Your task to perform on an android device: delete browsing data in the chrome app Image 0: 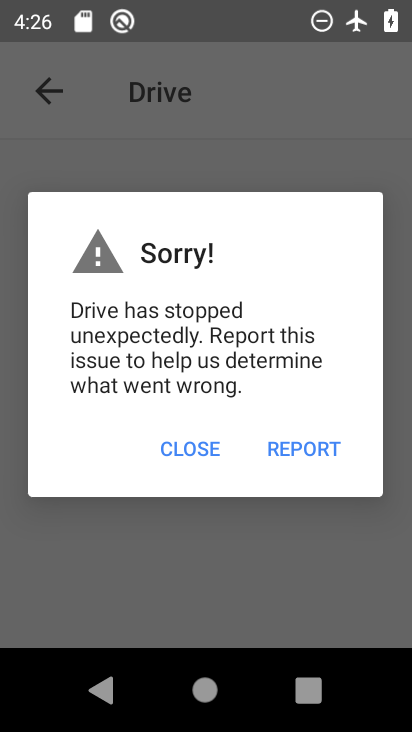
Step 0: press home button
Your task to perform on an android device: delete browsing data in the chrome app Image 1: 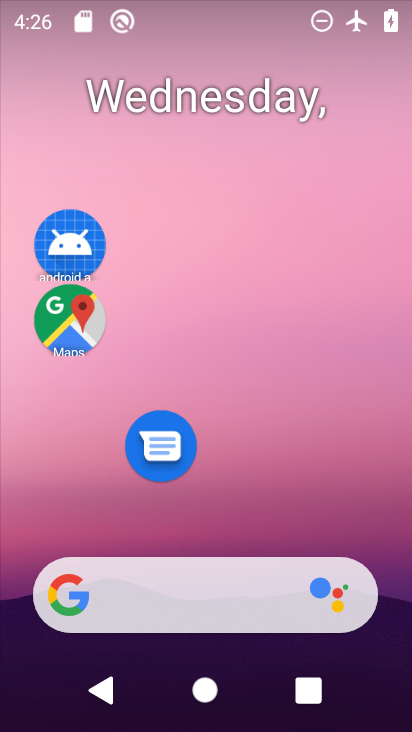
Step 1: drag from (358, 465) to (331, 155)
Your task to perform on an android device: delete browsing data in the chrome app Image 2: 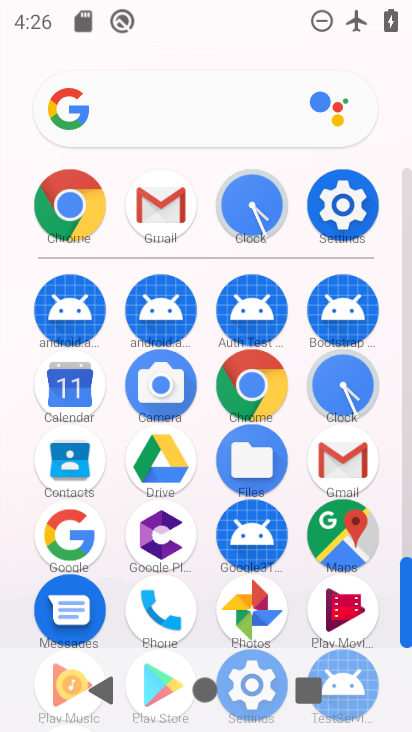
Step 2: click (101, 214)
Your task to perform on an android device: delete browsing data in the chrome app Image 3: 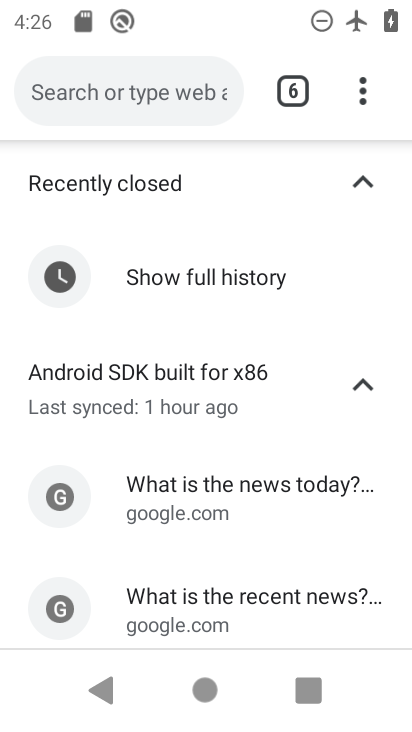
Step 3: click (353, 100)
Your task to perform on an android device: delete browsing data in the chrome app Image 4: 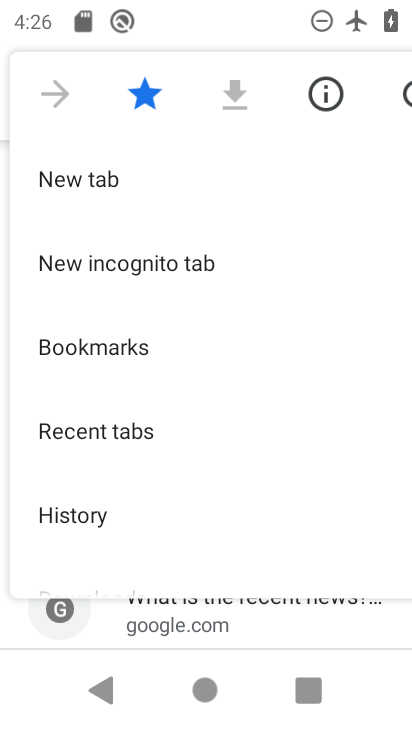
Step 4: click (205, 493)
Your task to perform on an android device: delete browsing data in the chrome app Image 5: 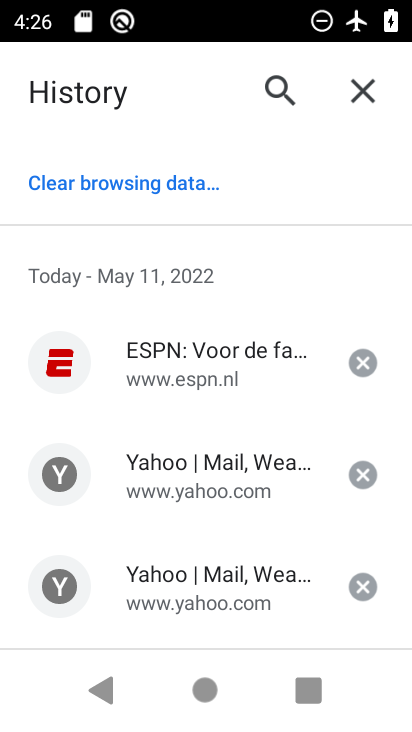
Step 5: click (146, 200)
Your task to perform on an android device: delete browsing data in the chrome app Image 6: 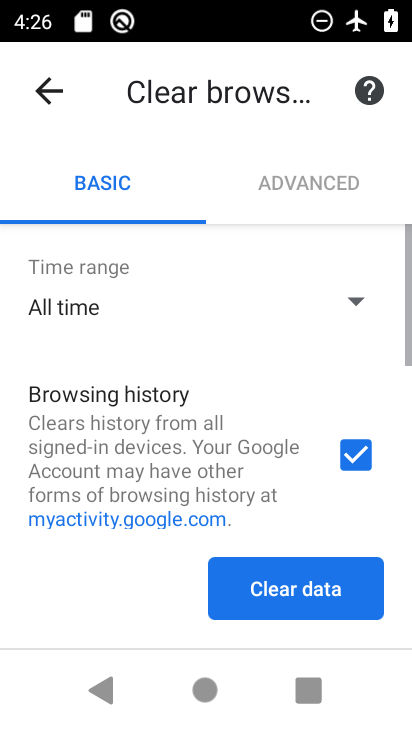
Step 6: click (296, 584)
Your task to perform on an android device: delete browsing data in the chrome app Image 7: 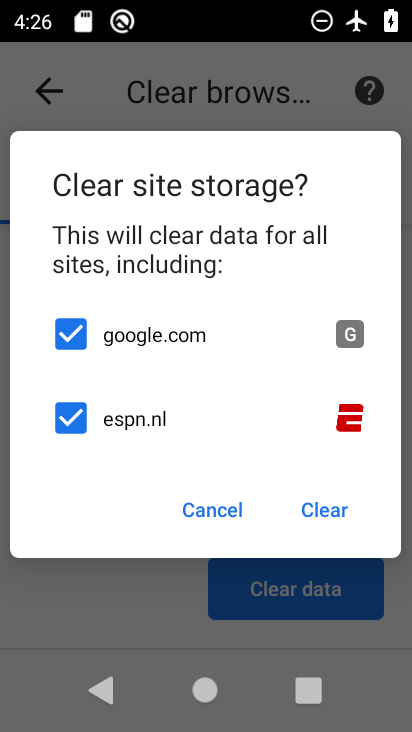
Step 7: click (327, 494)
Your task to perform on an android device: delete browsing data in the chrome app Image 8: 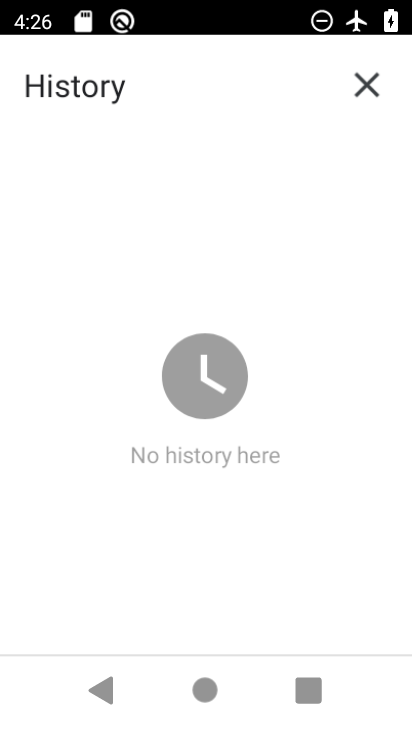
Step 8: task complete